Your task to perform on an android device: turn on location history Image 0: 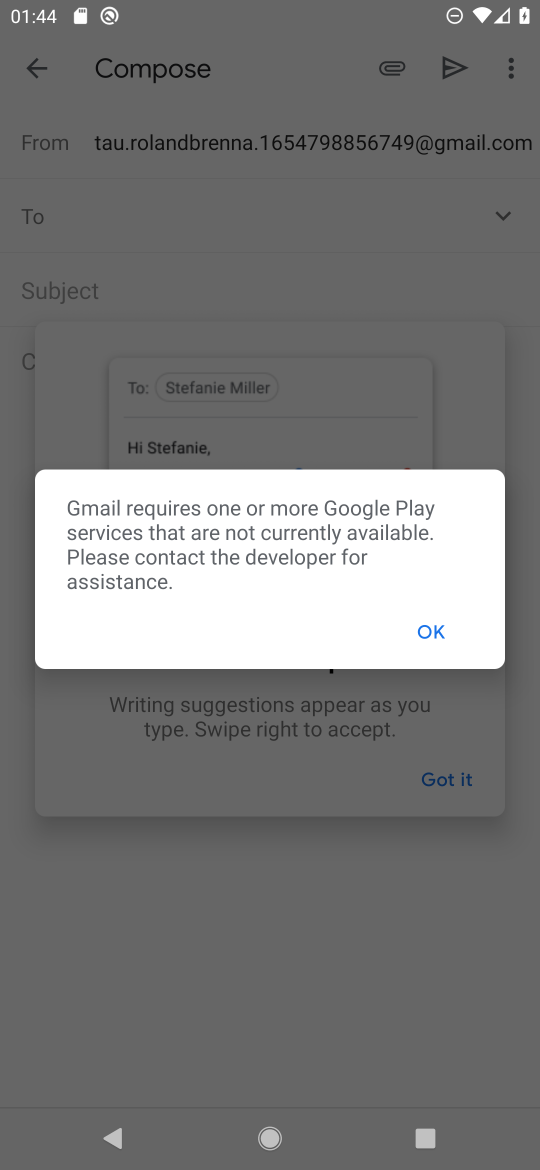
Step 0: press home button
Your task to perform on an android device: turn on location history Image 1: 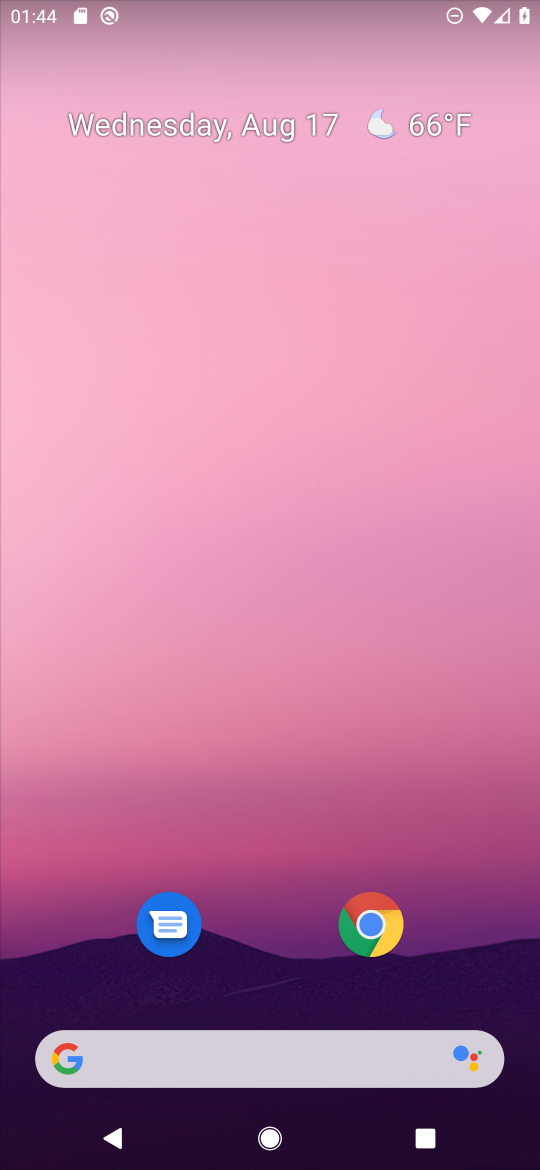
Step 1: drag from (228, 1006) to (278, 89)
Your task to perform on an android device: turn on location history Image 2: 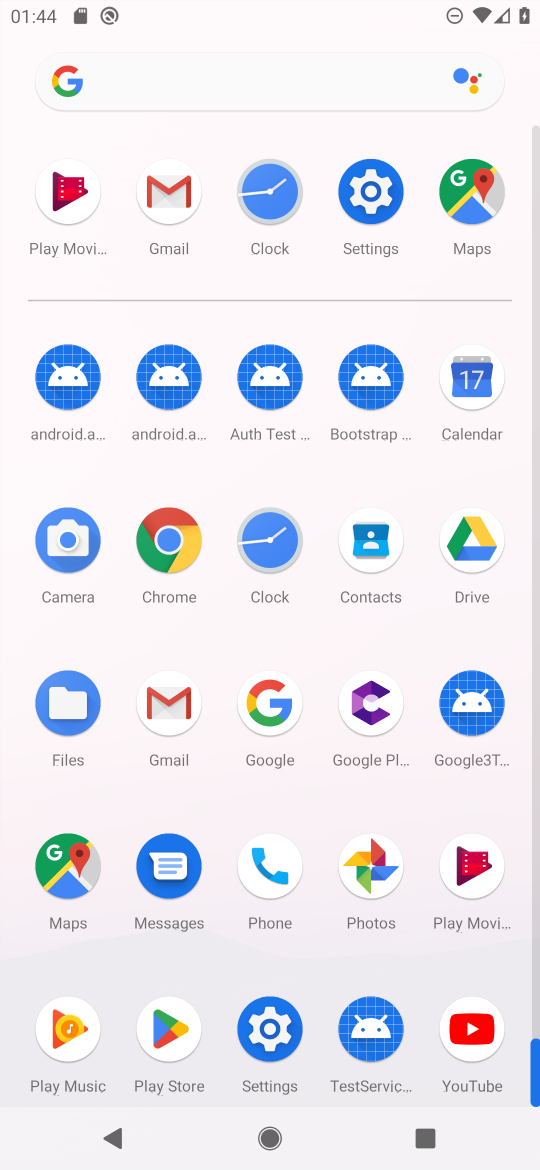
Step 2: click (372, 192)
Your task to perform on an android device: turn on location history Image 3: 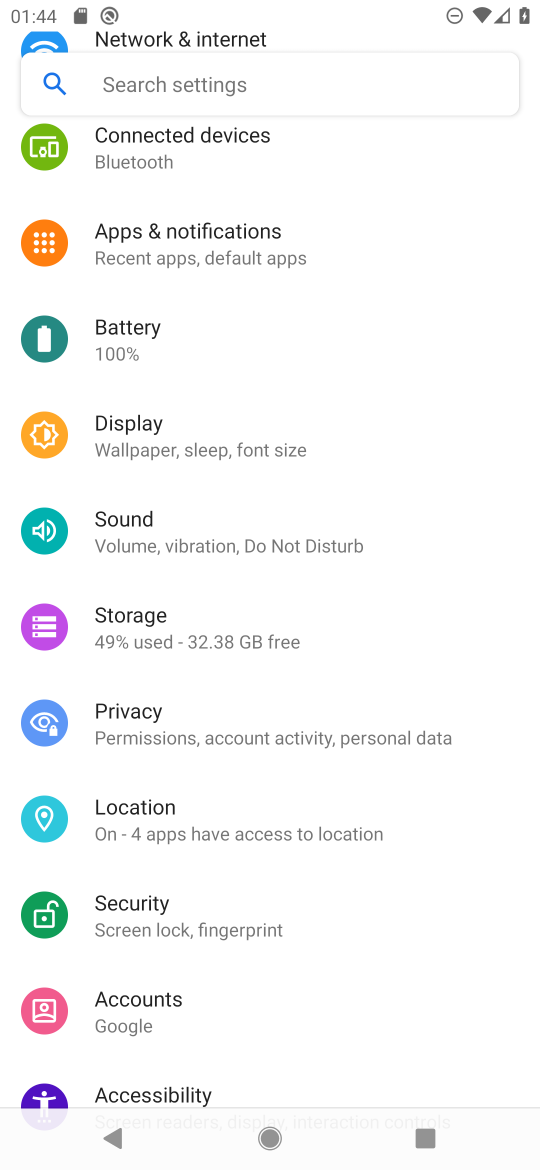
Step 3: click (211, 845)
Your task to perform on an android device: turn on location history Image 4: 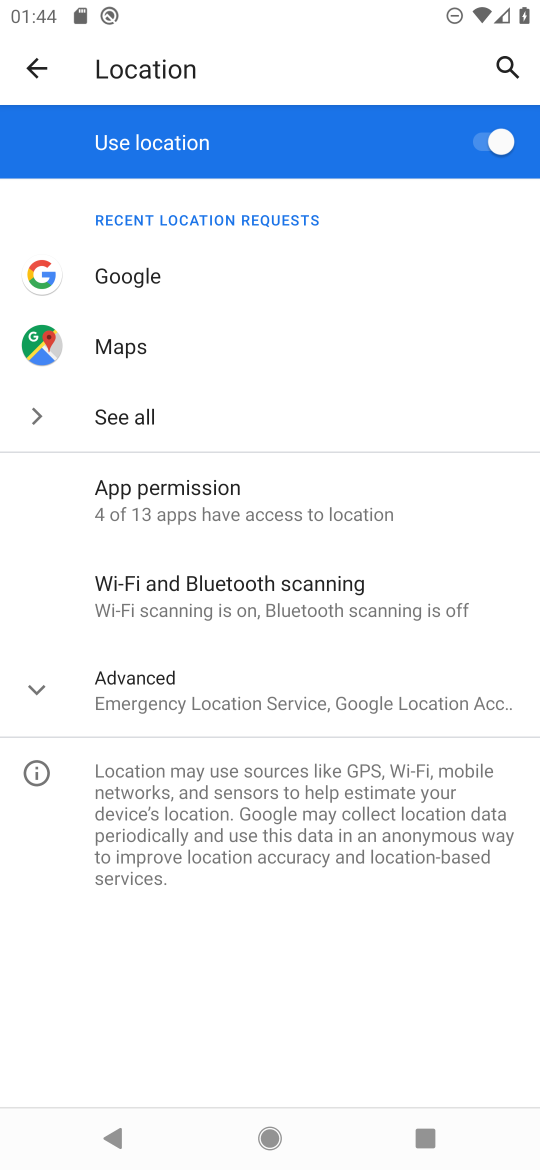
Step 4: click (197, 715)
Your task to perform on an android device: turn on location history Image 5: 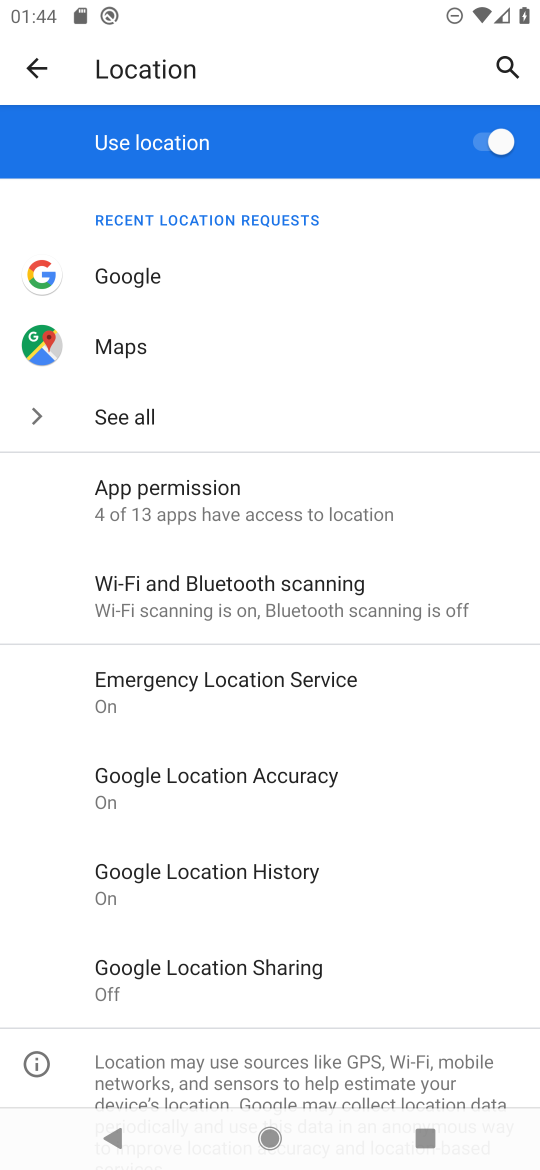
Step 5: click (228, 890)
Your task to perform on an android device: turn on location history Image 6: 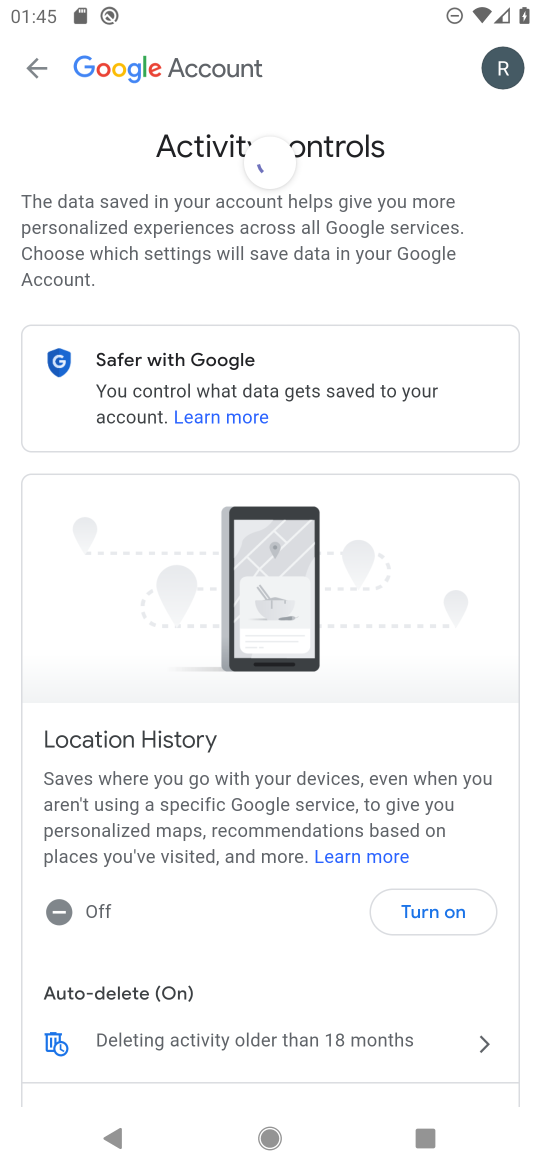
Step 6: click (459, 914)
Your task to perform on an android device: turn on location history Image 7: 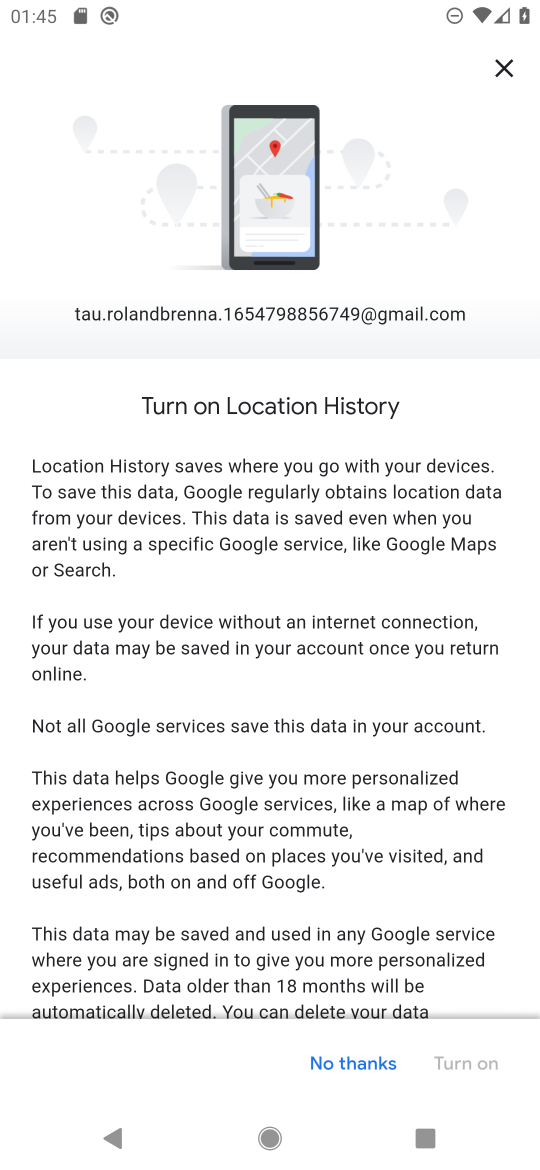
Step 7: task complete